Your task to perform on an android device: Search for the best rated headphones on amazon.com Image 0: 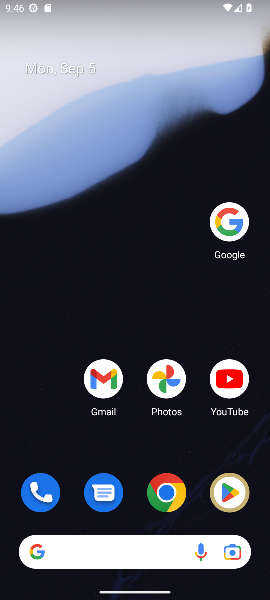
Step 0: click (235, 213)
Your task to perform on an android device: Search for the best rated headphones on amazon.com Image 1: 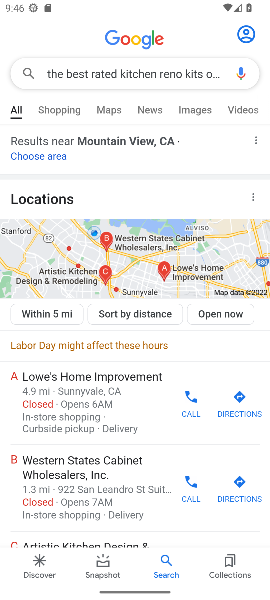
Step 1: click (176, 72)
Your task to perform on an android device: Search for the best rated headphones on amazon.com Image 2: 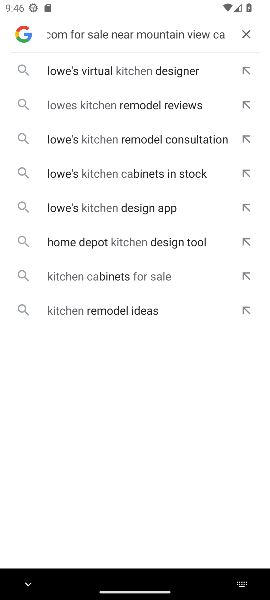
Step 2: click (247, 32)
Your task to perform on an android device: Search for the best rated headphones on amazon.com Image 3: 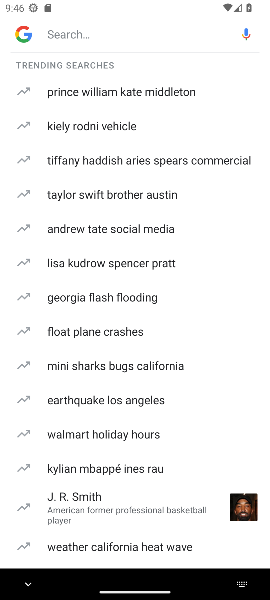
Step 3: click (106, 27)
Your task to perform on an android device: Search for the best rated headphones on amazon.com Image 4: 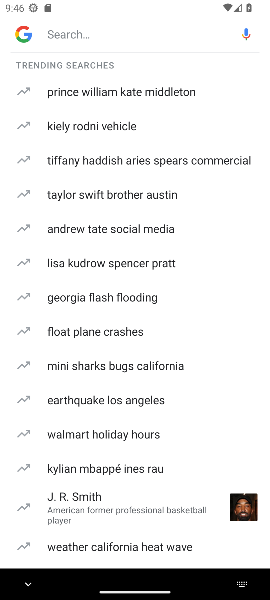
Step 4: type "best rated headphones on amazon.com "
Your task to perform on an android device: Search for the best rated headphones on amazon.com Image 5: 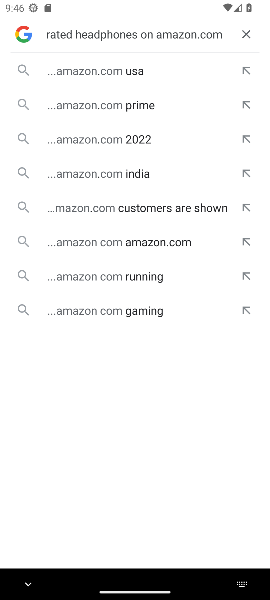
Step 5: click (131, 72)
Your task to perform on an android device: Search for the best rated headphones on amazon.com Image 6: 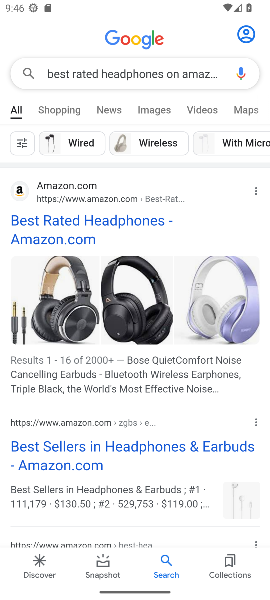
Step 6: task complete